Your task to perform on an android device: Open the calendar and show me this week's events Image 0: 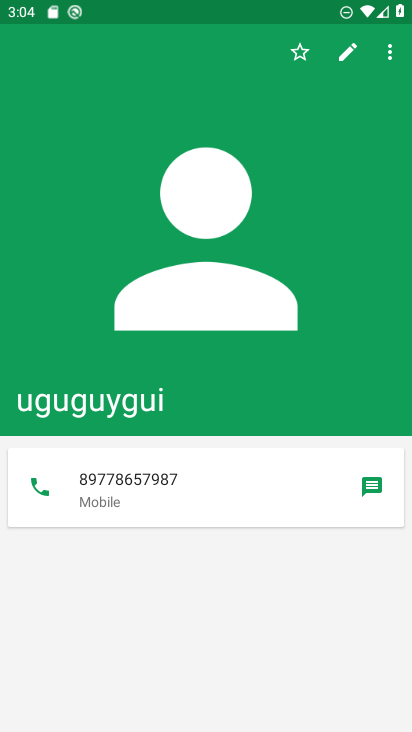
Step 0: press home button
Your task to perform on an android device: Open the calendar and show me this week's events Image 1: 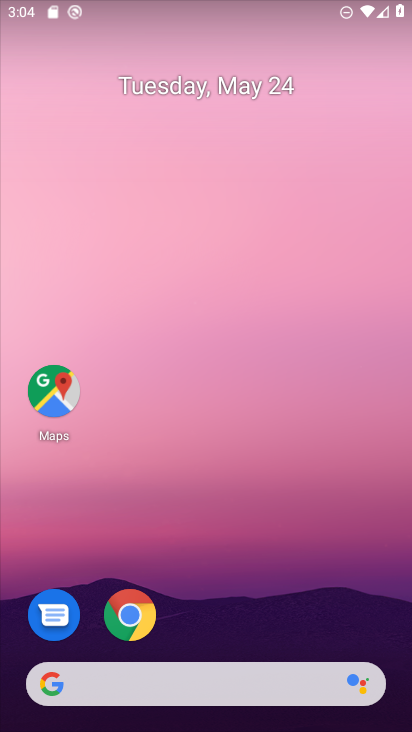
Step 1: drag from (237, 624) to (306, 9)
Your task to perform on an android device: Open the calendar and show me this week's events Image 2: 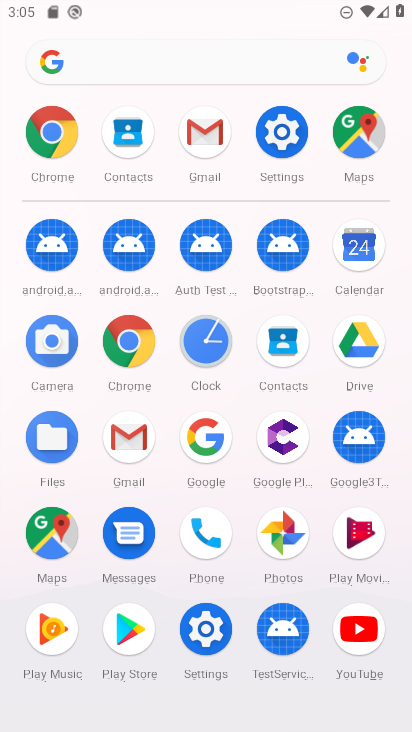
Step 2: click (360, 260)
Your task to perform on an android device: Open the calendar and show me this week's events Image 3: 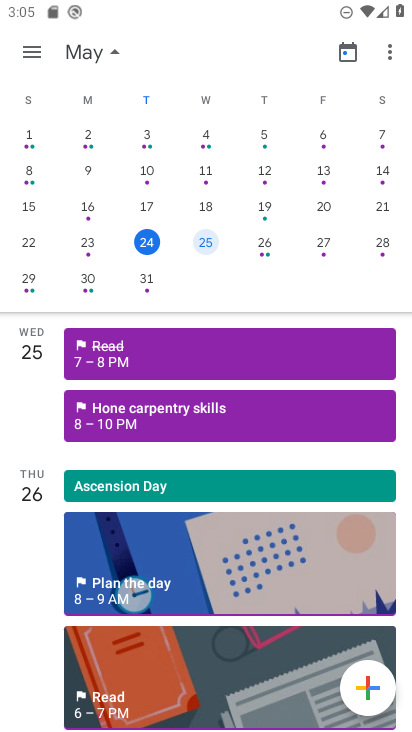
Step 3: task complete